Your task to perform on an android device: turn on improve location accuracy Image 0: 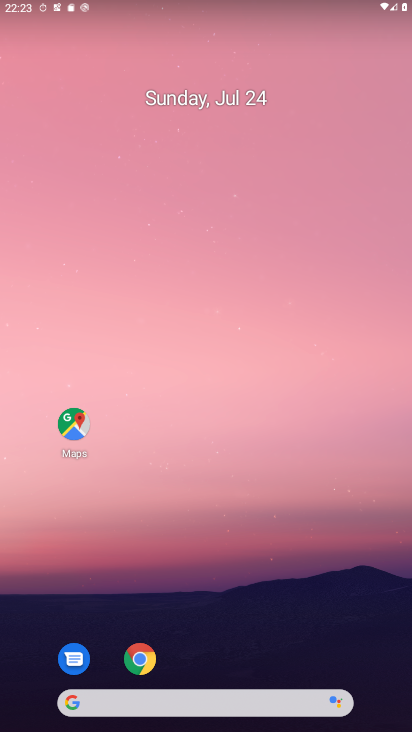
Step 0: drag from (222, 549) to (210, 182)
Your task to perform on an android device: turn on improve location accuracy Image 1: 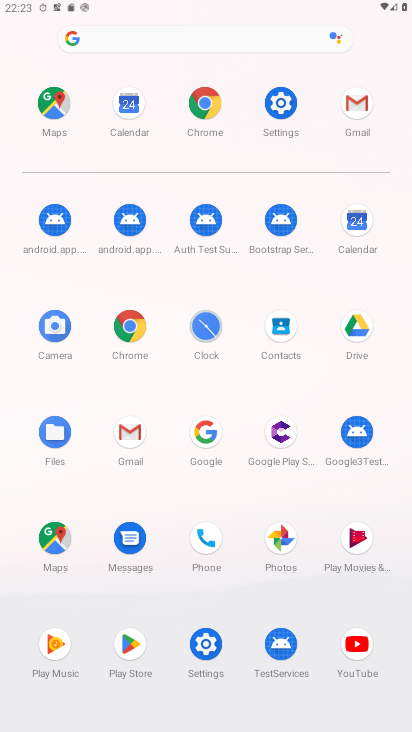
Step 1: click (280, 103)
Your task to perform on an android device: turn on improve location accuracy Image 2: 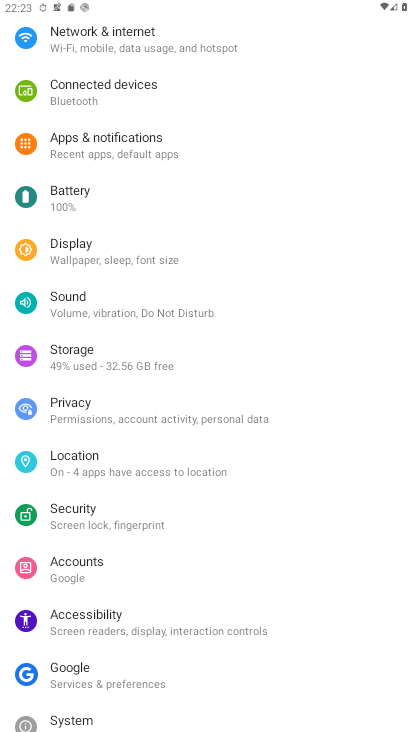
Step 2: click (73, 459)
Your task to perform on an android device: turn on improve location accuracy Image 3: 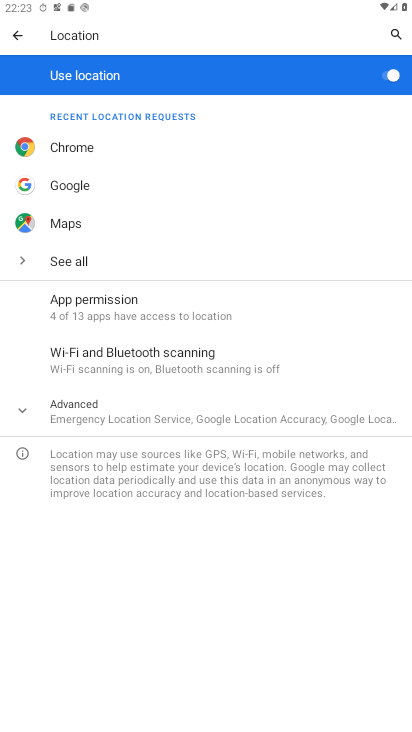
Step 3: click (74, 408)
Your task to perform on an android device: turn on improve location accuracy Image 4: 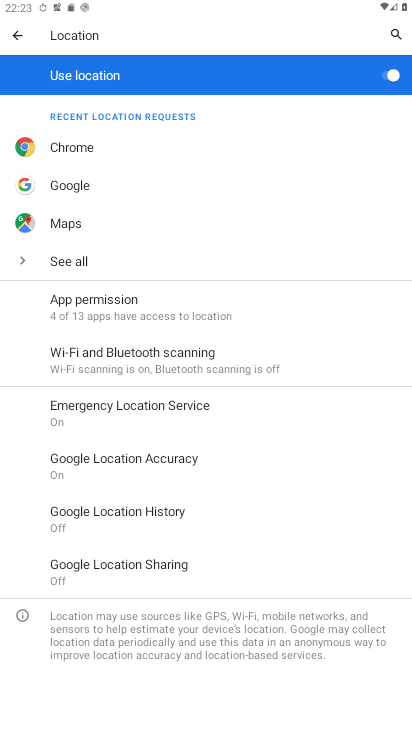
Step 4: click (129, 457)
Your task to perform on an android device: turn on improve location accuracy Image 5: 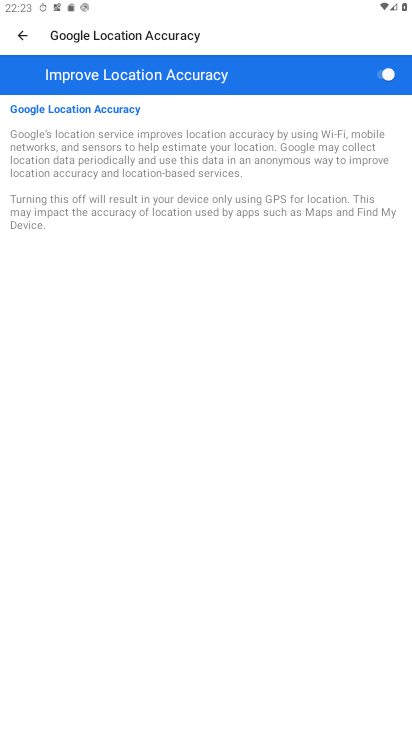
Step 5: task complete